Your task to perform on an android device: turn on airplane mode Image 0: 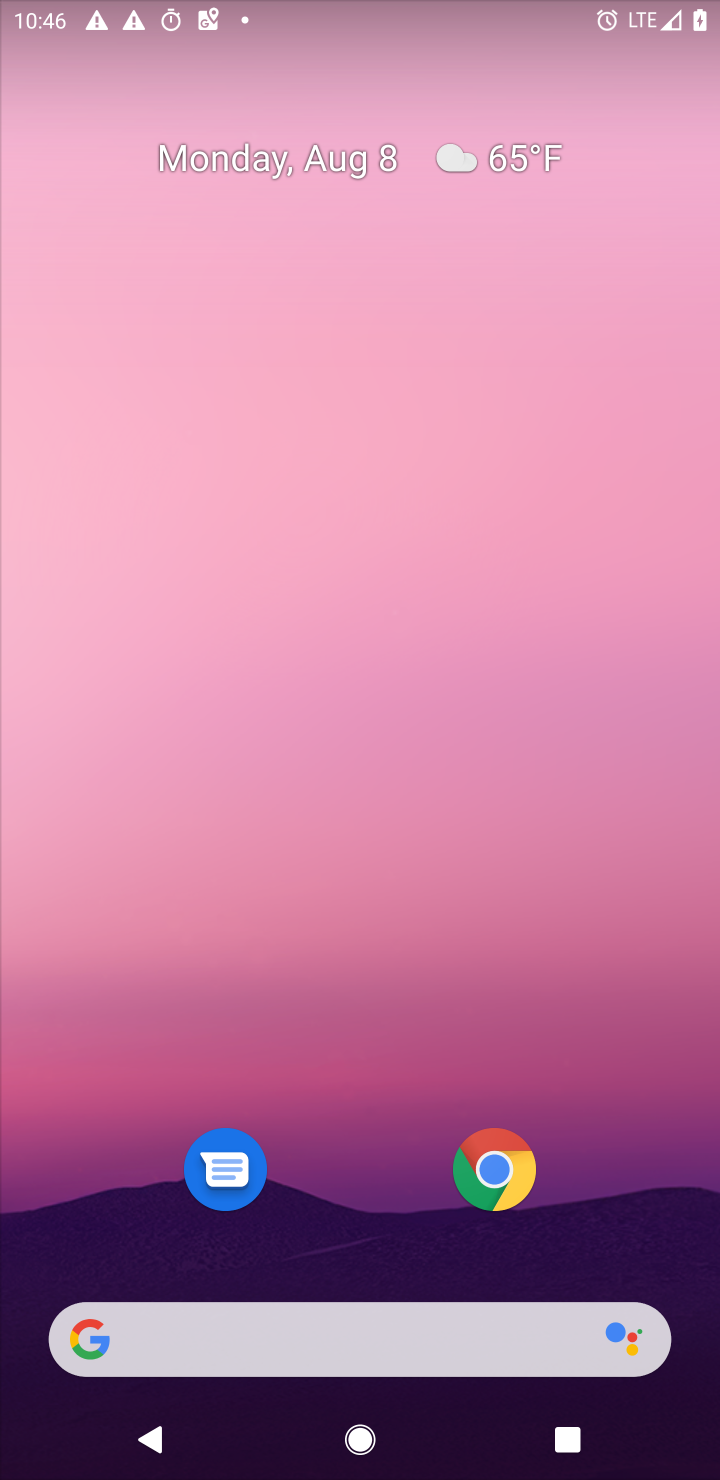
Step 0: drag from (626, 242) to (479, 1330)
Your task to perform on an android device: turn on airplane mode Image 1: 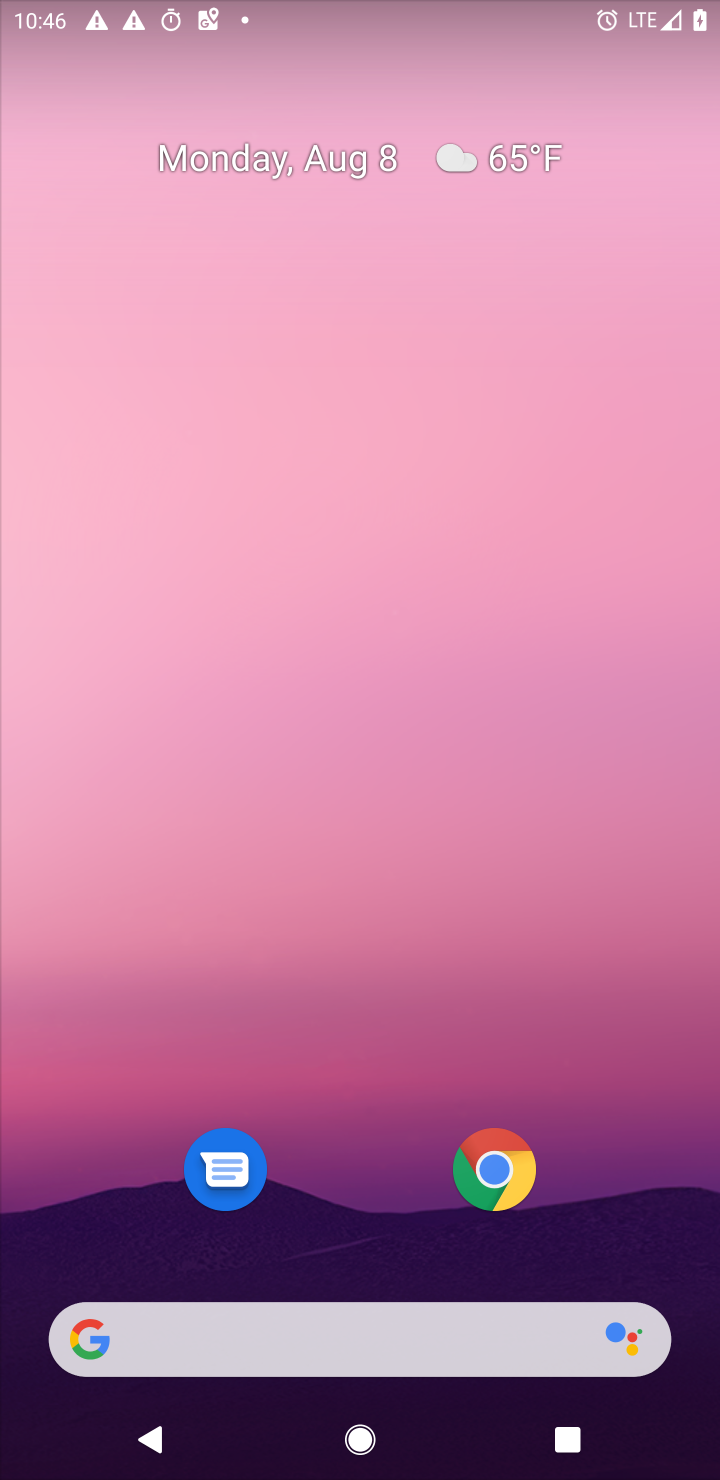
Step 1: drag from (538, 86) to (533, 1209)
Your task to perform on an android device: turn on airplane mode Image 2: 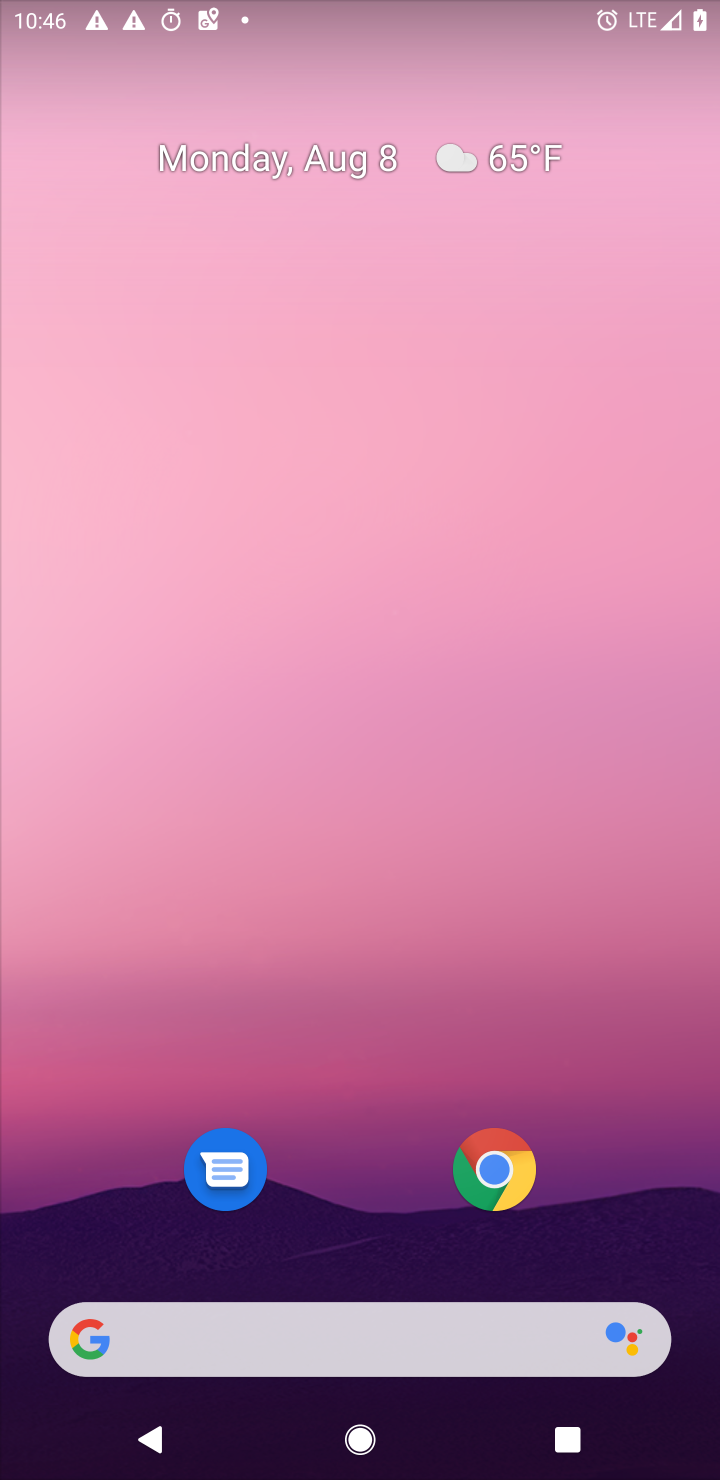
Step 2: drag from (611, 6) to (630, 1278)
Your task to perform on an android device: turn on airplane mode Image 3: 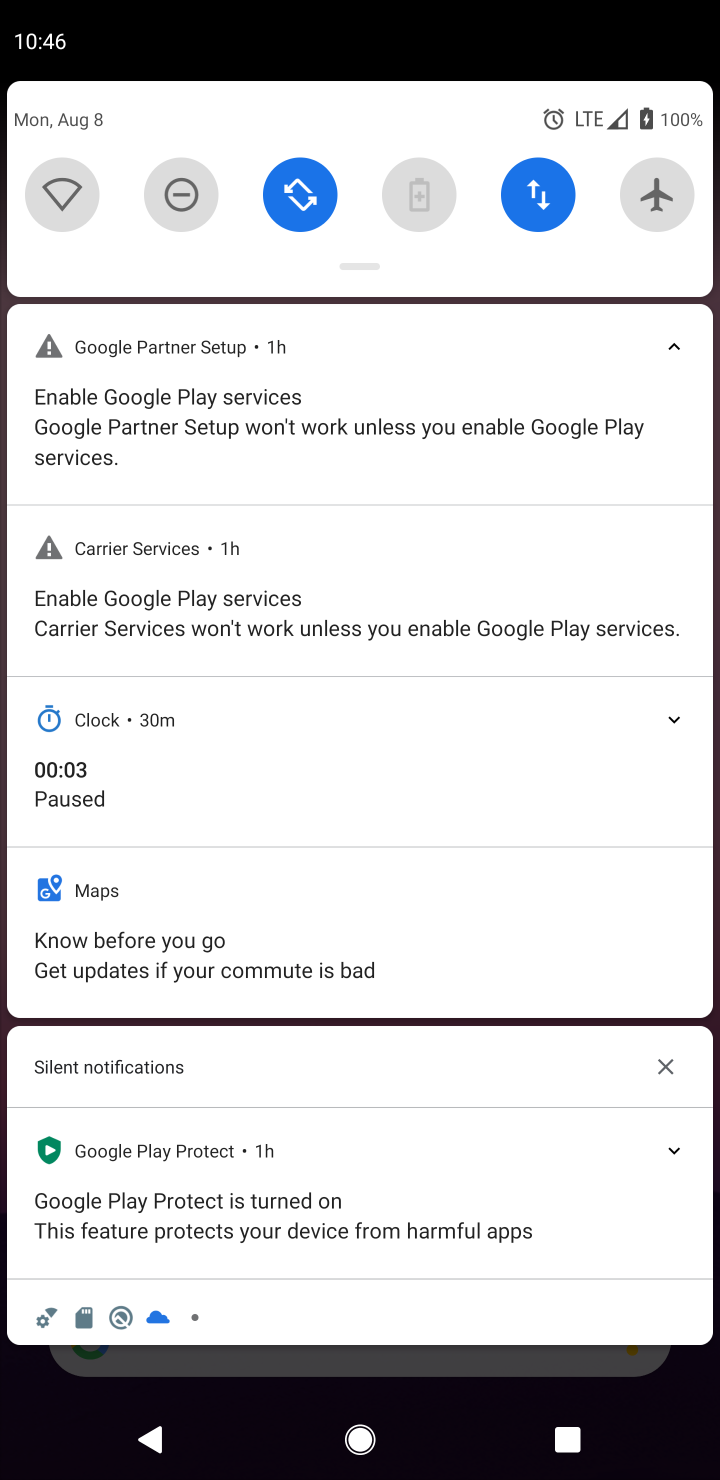
Step 3: click (653, 196)
Your task to perform on an android device: turn on airplane mode Image 4: 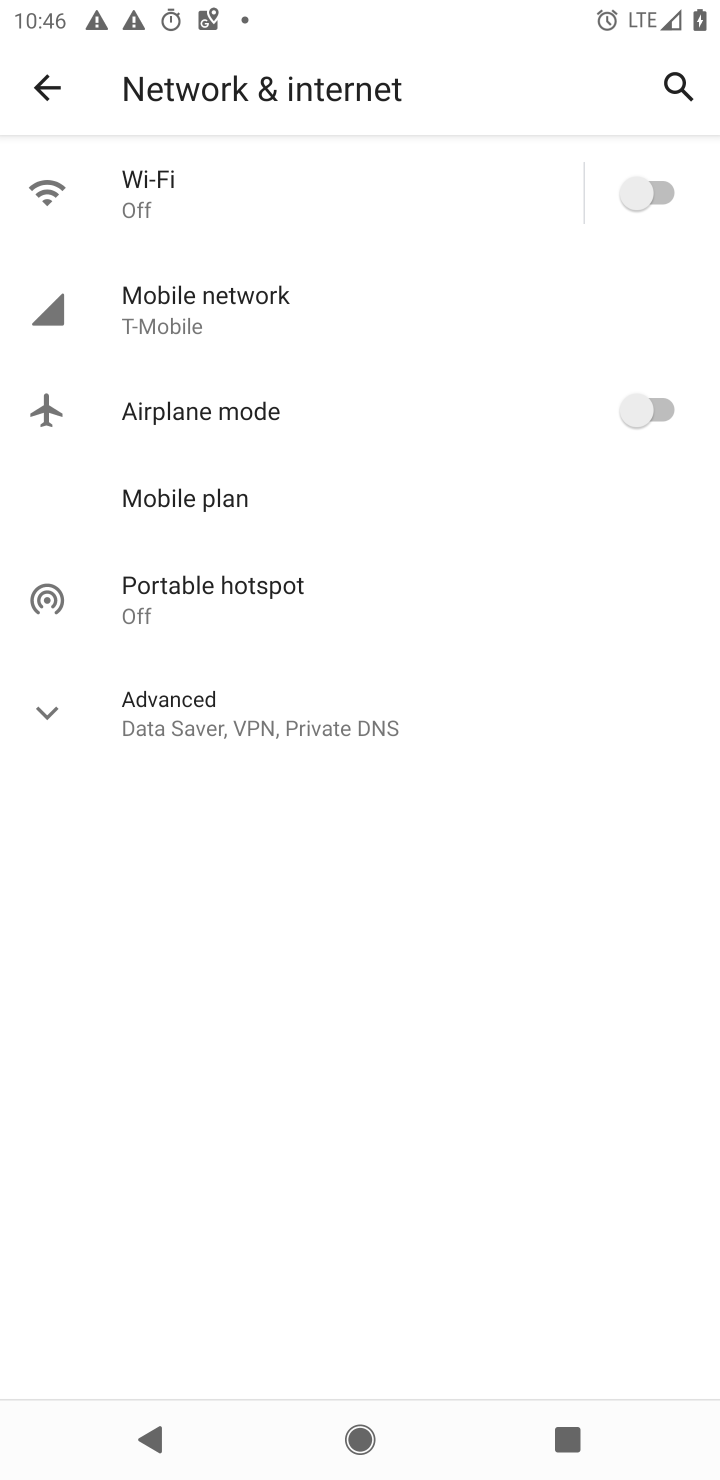
Step 4: click (665, 434)
Your task to perform on an android device: turn on airplane mode Image 5: 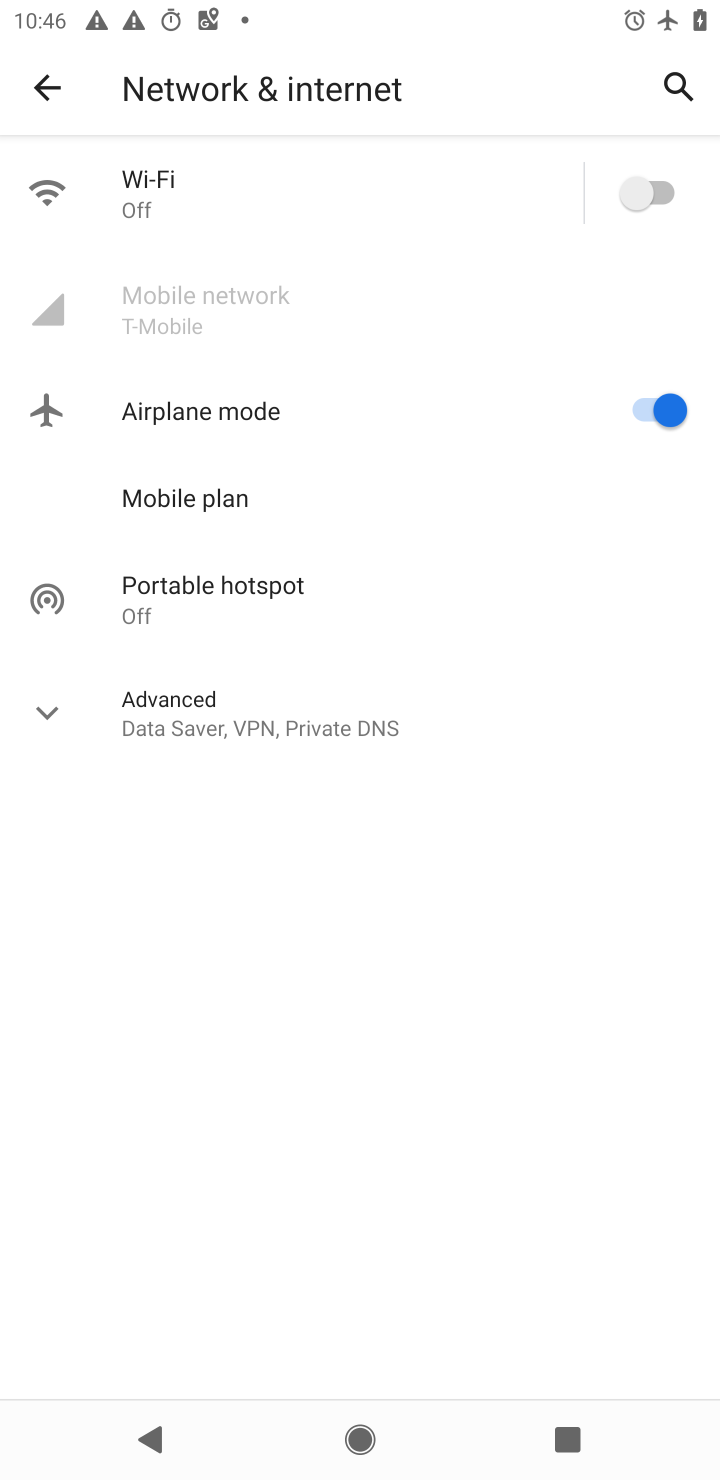
Step 5: task complete